Your task to perform on an android device: Open settings on Google Maps Image 0: 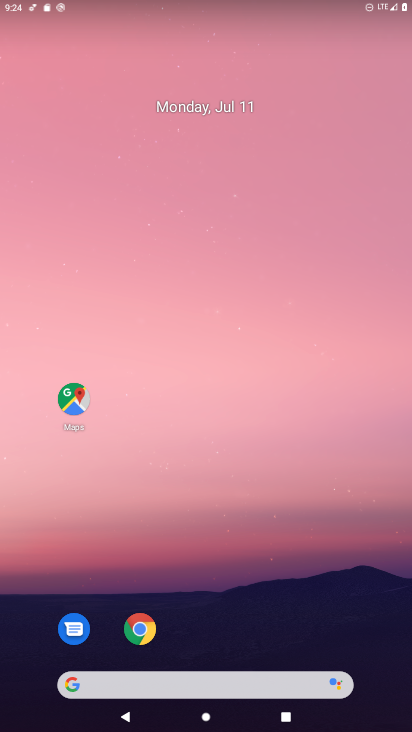
Step 0: click (79, 398)
Your task to perform on an android device: Open settings on Google Maps Image 1: 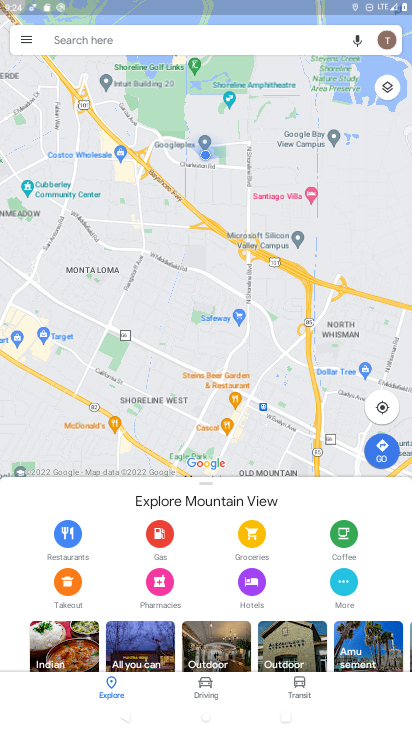
Step 1: click (31, 41)
Your task to perform on an android device: Open settings on Google Maps Image 2: 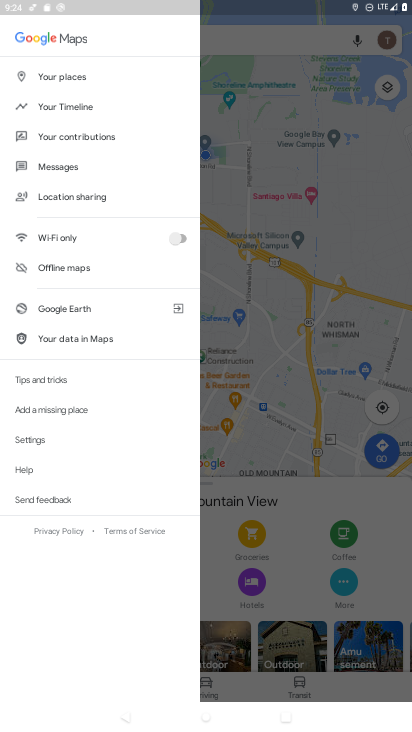
Step 2: click (44, 442)
Your task to perform on an android device: Open settings on Google Maps Image 3: 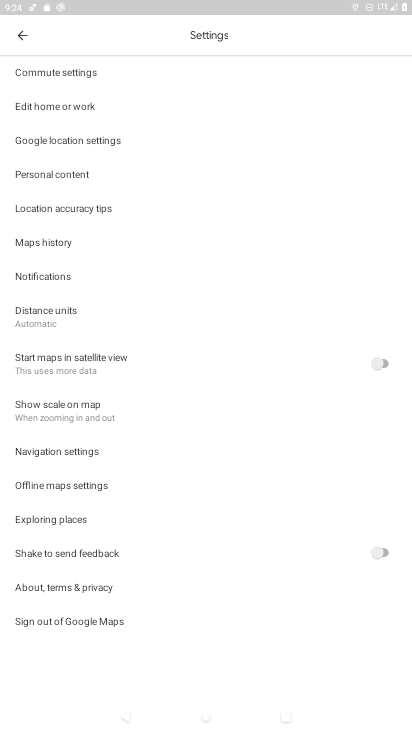
Step 3: task complete